Your task to perform on an android device: change timer sound Image 0: 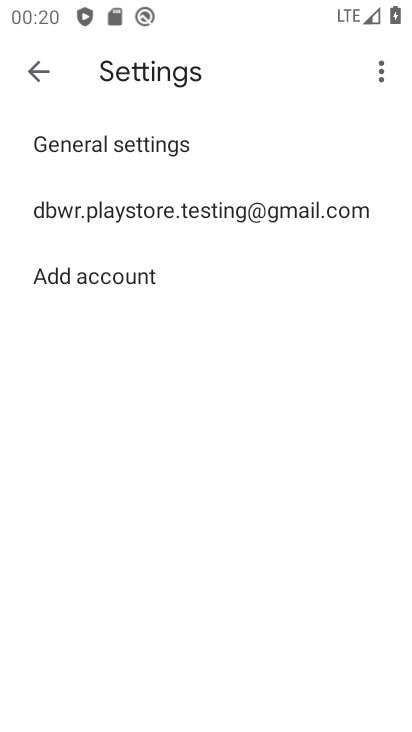
Step 0: press home button
Your task to perform on an android device: change timer sound Image 1: 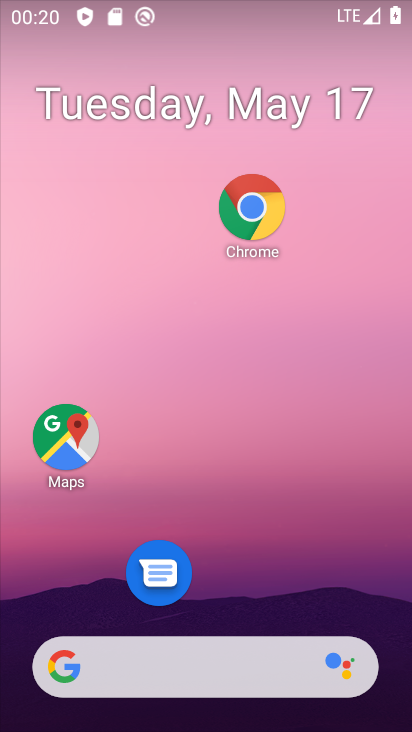
Step 1: drag from (256, 673) to (274, 71)
Your task to perform on an android device: change timer sound Image 2: 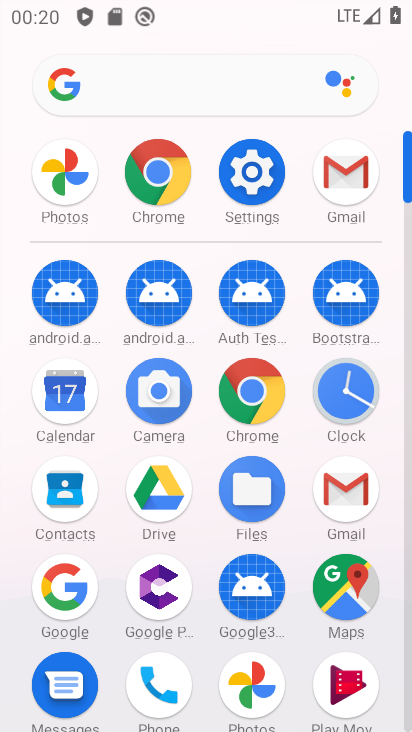
Step 2: click (235, 171)
Your task to perform on an android device: change timer sound Image 3: 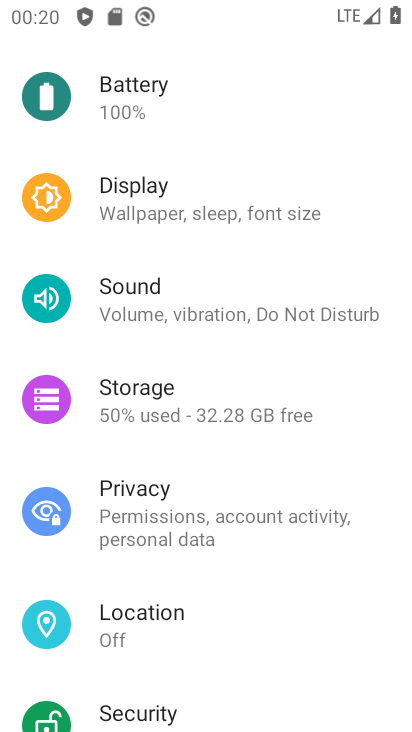
Step 3: press home button
Your task to perform on an android device: change timer sound Image 4: 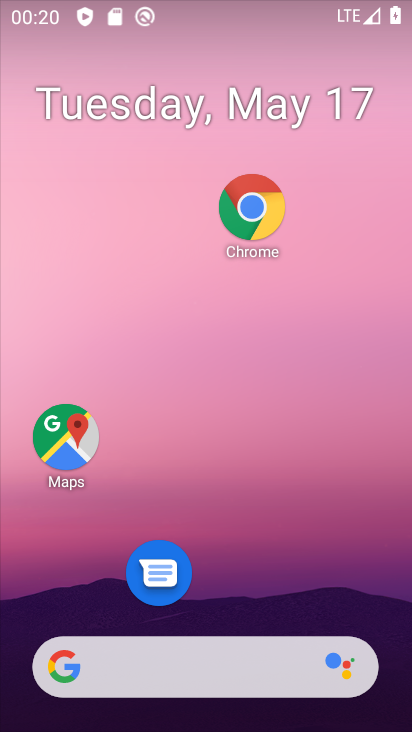
Step 4: drag from (236, 641) to (339, 88)
Your task to perform on an android device: change timer sound Image 5: 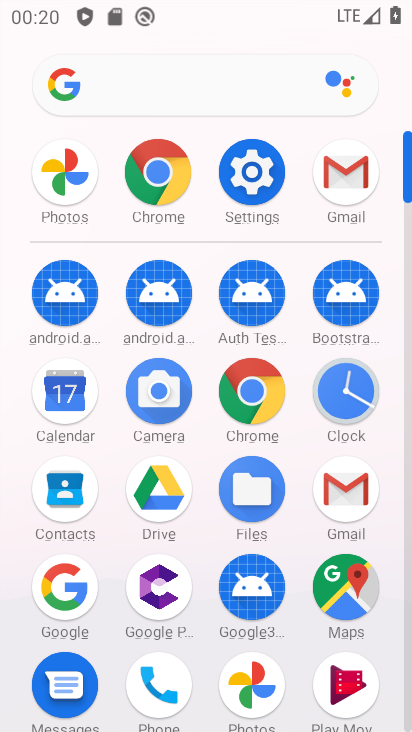
Step 5: click (348, 392)
Your task to perform on an android device: change timer sound Image 6: 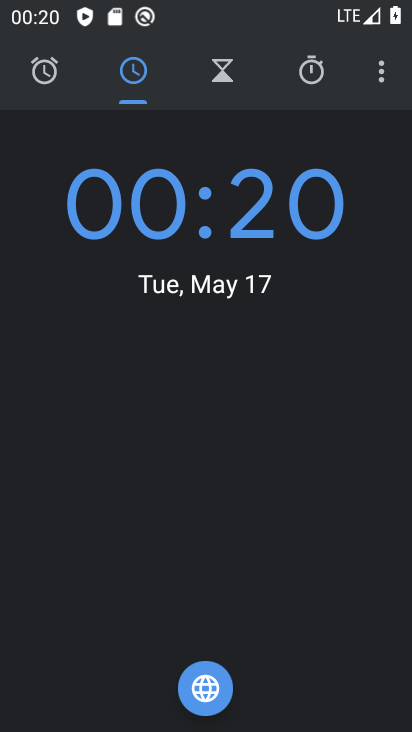
Step 6: click (377, 69)
Your task to perform on an android device: change timer sound Image 7: 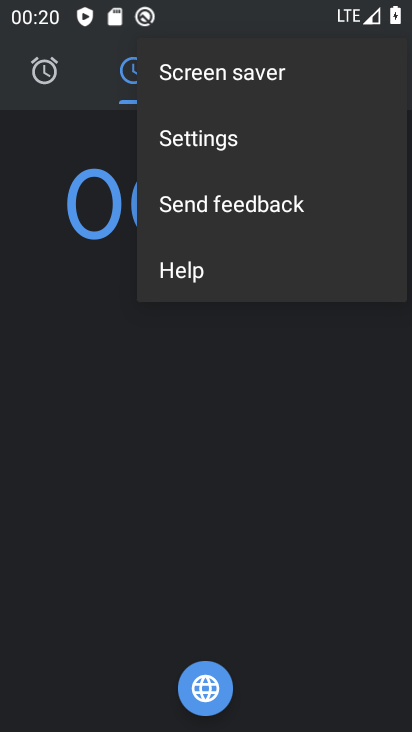
Step 7: click (240, 137)
Your task to perform on an android device: change timer sound Image 8: 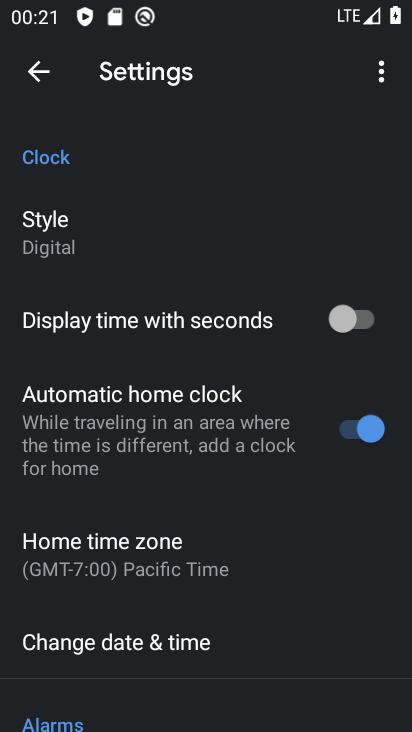
Step 8: drag from (264, 548) to (313, 55)
Your task to perform on an android device: change timer sound Image 9: 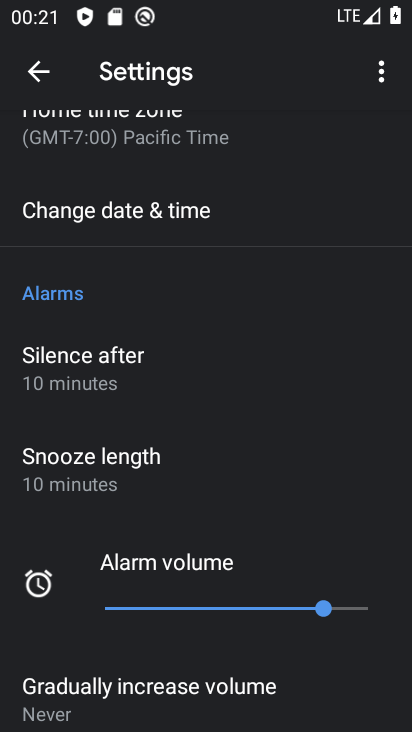
Step 9: drag from (203, 589) to (185, 92)
Your task to perform on an android device: change timer sound Image 10: 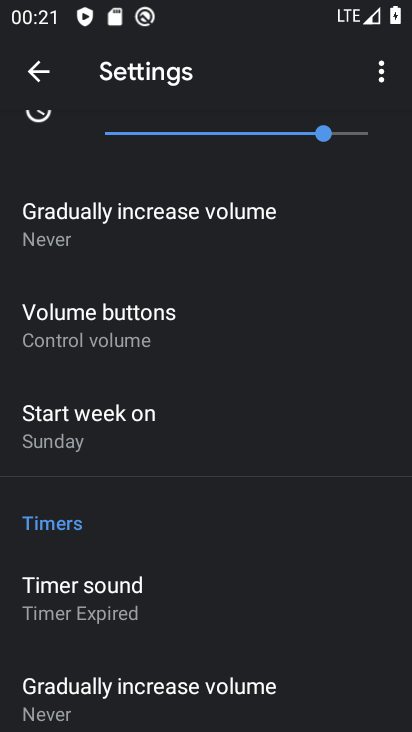
Step 10: click (193, 607)
Your task to perform on an android device: change timer sound Image 11: 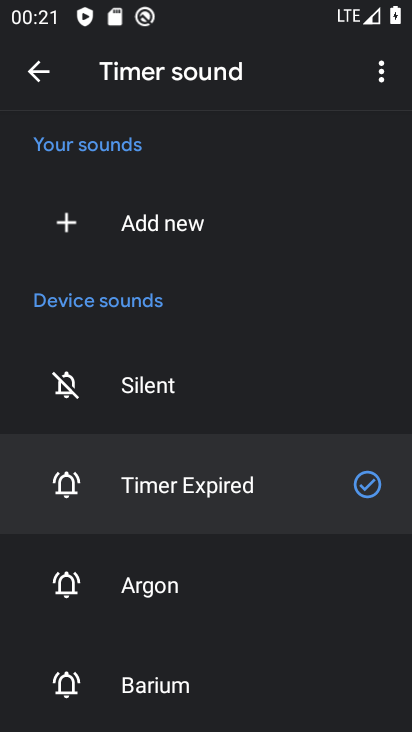
Step 11: click (127, 583)
Your task to perform on an android device: change timer sound Image 12: 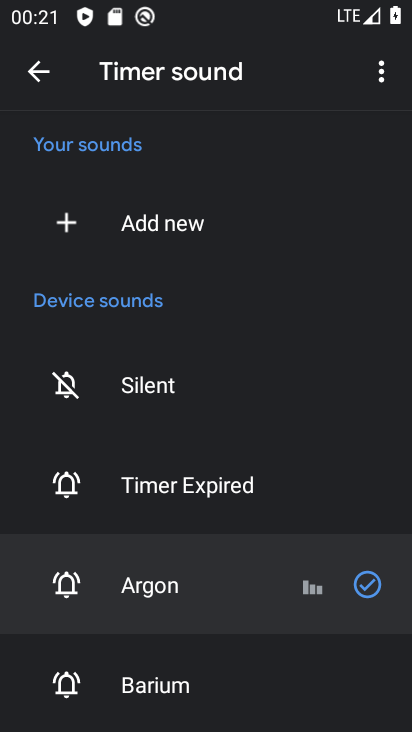
Step 12: task complete